Your task to perform on an android device: Open the phone app and click the voicemail tab. Image 0: 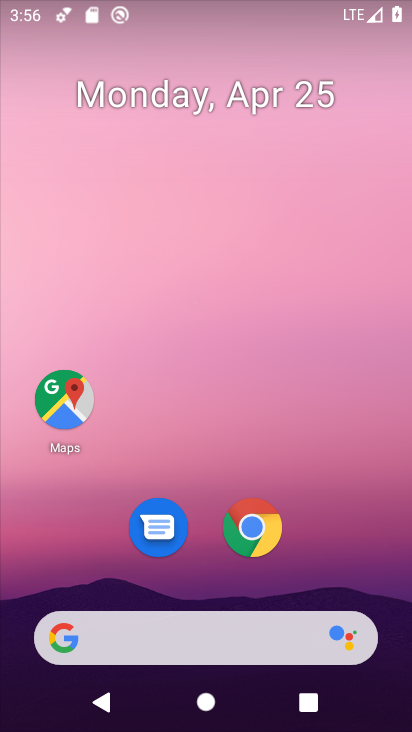
Step 0: drag from (397, 653) to (299, 95)
Your task to perform on an android device: Open the phone app and click the voicemail tab. Image 1: 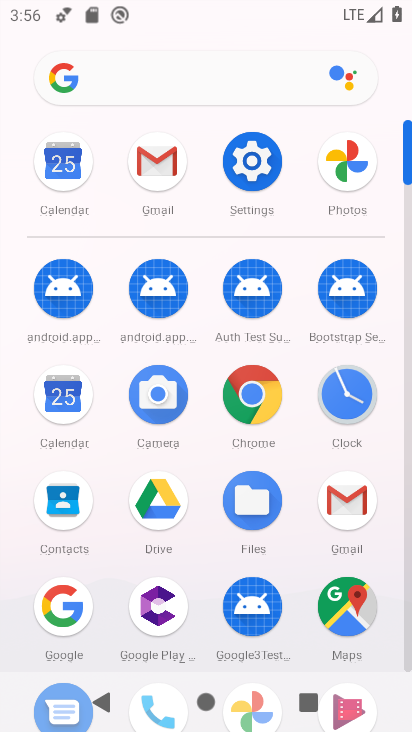
Step 1: click (404, 651)
Your task to perform on an android device: Open the phone app and click the voicemail tab. Image 2: 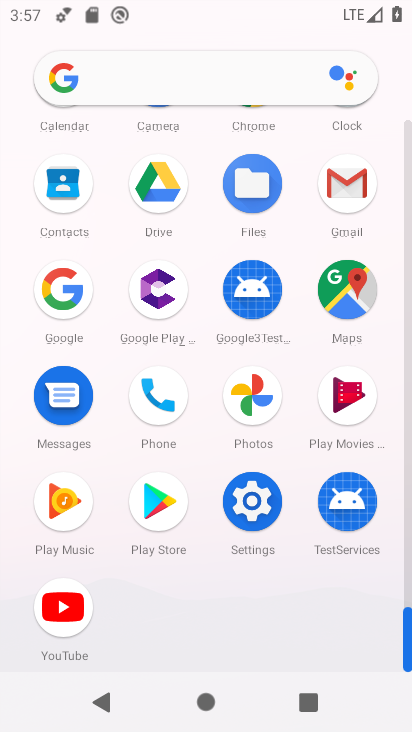
Step 2: click (155, 392)
Your task to perform on an android device: Open the phone app and click the voicemail tab. Image 3: 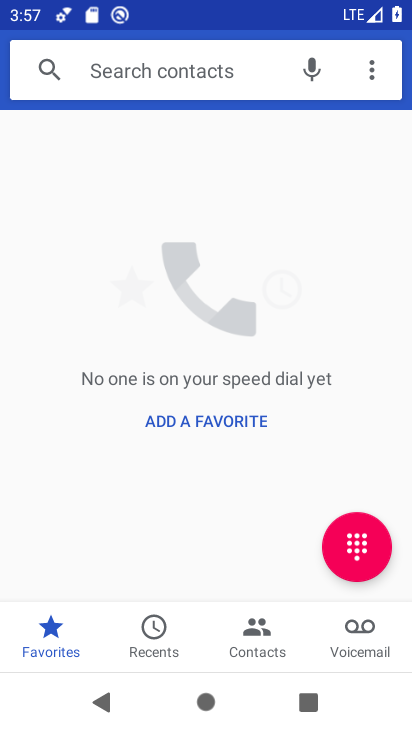
Step 3: click (357, 646)
Your task to perform on an android device: Open the phone app and click the voicemail tab. Image 4: 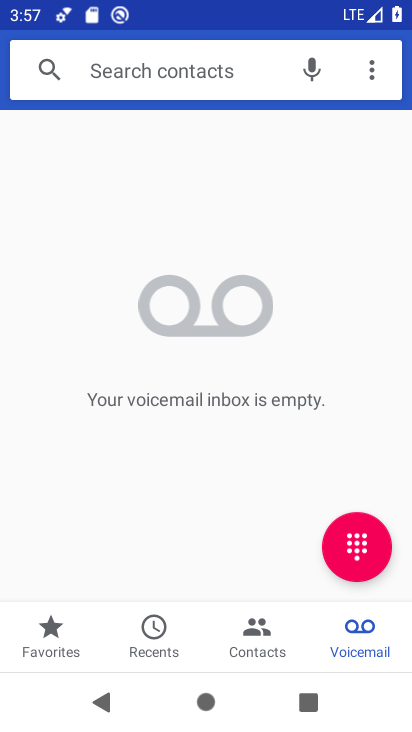
Step 4: task complete